Your task to perform on an android device: Go to Google Image 0: 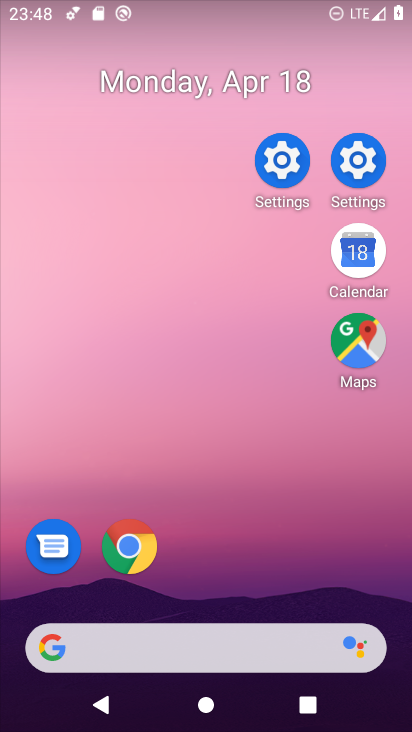
Step 0: click (271, 237)
Your task to perform on an android device: Go to Google Image 1: 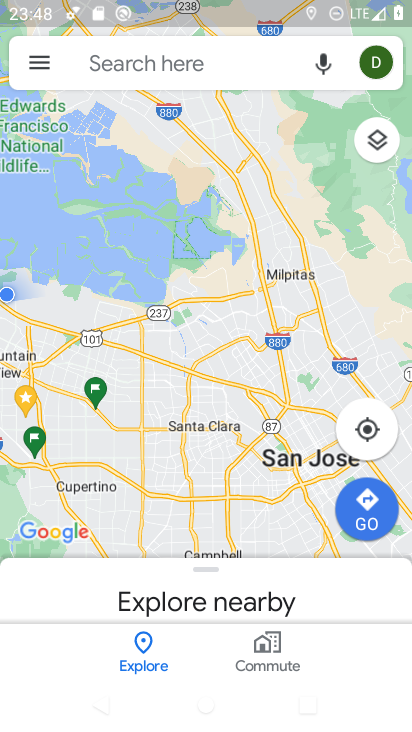
Step 1: press home button
Your task to perform on an android device: Go to Google Image 2: 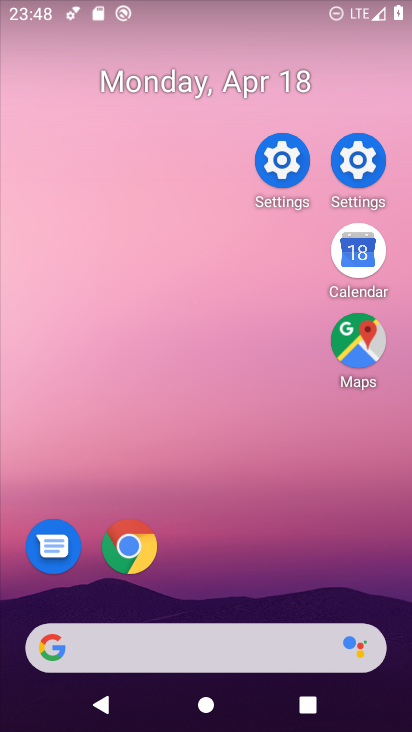
Step 2: drag from (217, 611) to (133, 185)
Your task to perform on an android device: Go to Google Image 3: 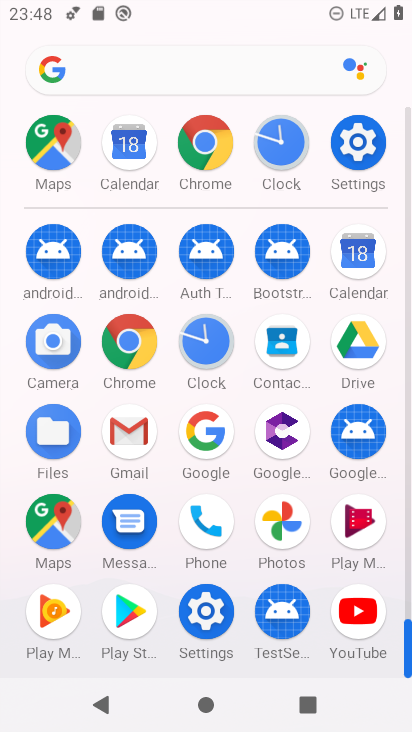
Step 3: click (210, 431)
Your task to perform on an android device: Go to Google Image 4: 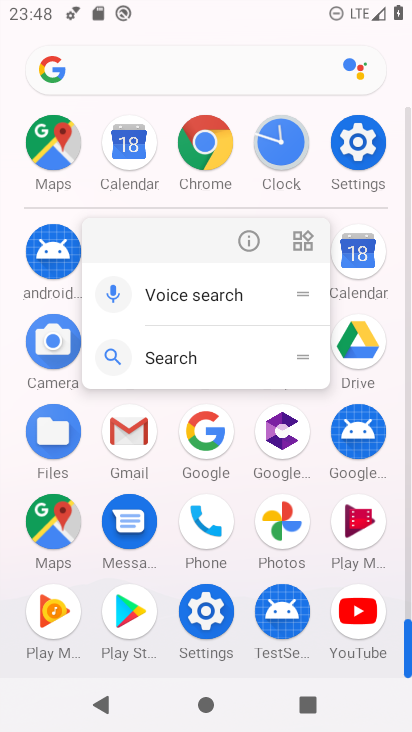
Step 4: click (213, 429)
Your task to perform on an android device: Go to Google Image 5: 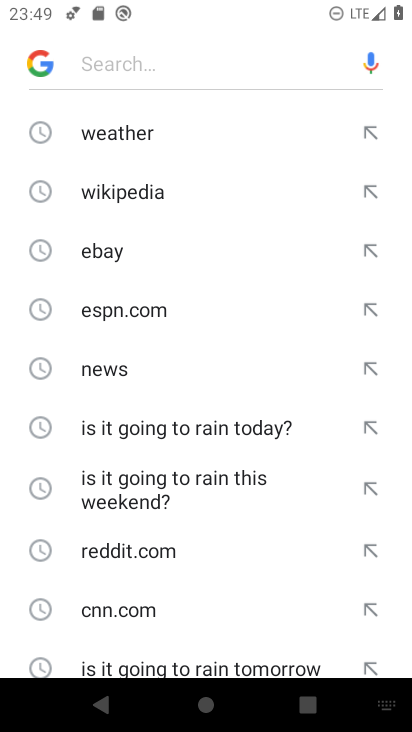
Step 5: task complete